Your task to perform on an android device: Open Chrome and go to settings Image 0: 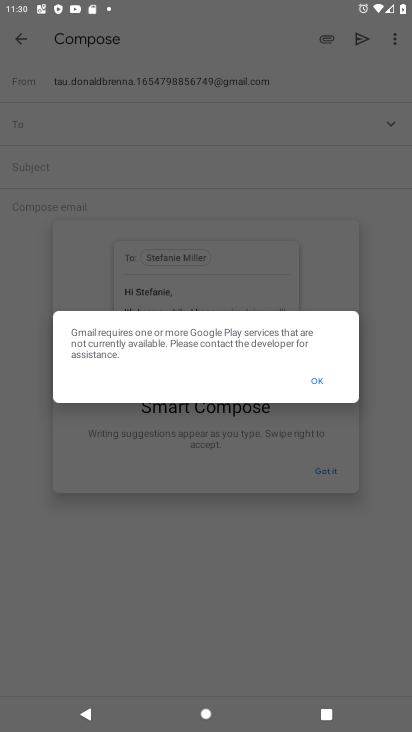
Step 0: press home button
Your task to perform on an android device: Open Chrome and go to settings Image 1: 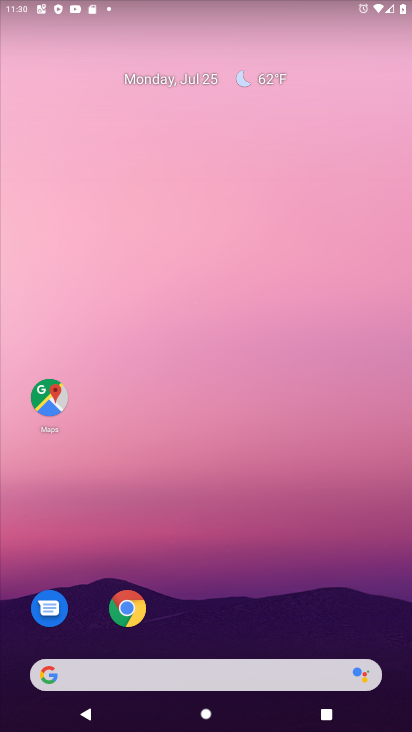
Step 1: click (124, 604)
Your task to perform on an android device: Open Chrome and go to settings Image 2: 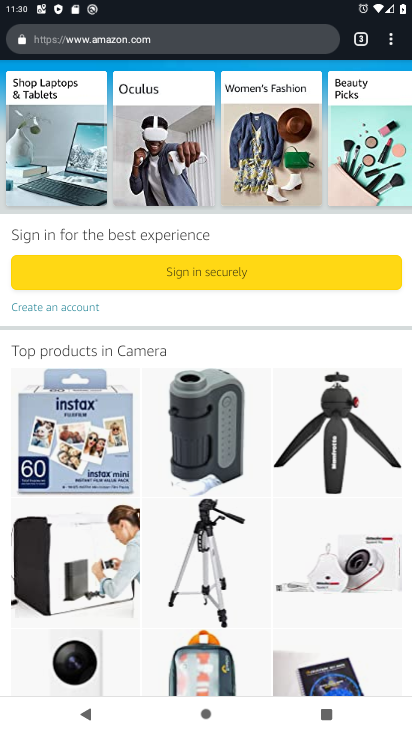
Step 2: click (387, 38)
Your task to perform on an android device: Open Chrome and go to settings Image 3: 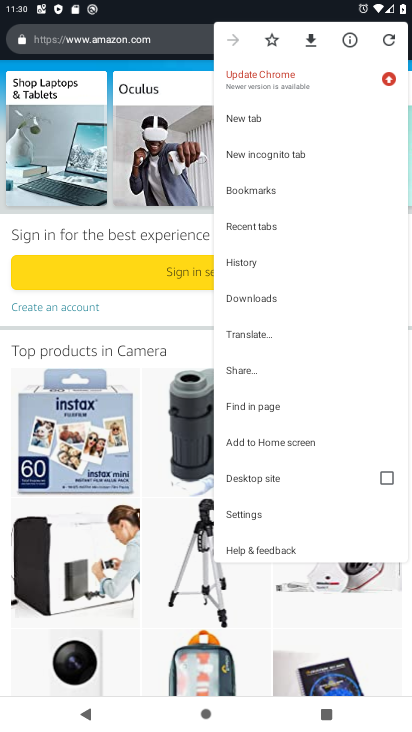
Step 3: click (240, 516)
Your task to perform on an android device: Open Chrome and go to settings Image 4: 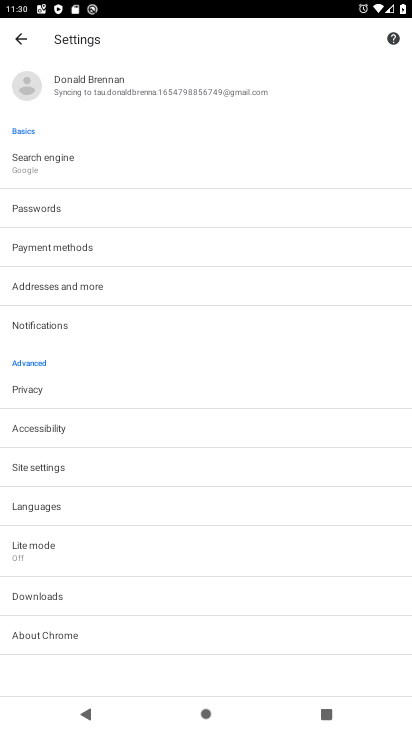
Step 4: task complete